Your task to perform on an android device: Open wifi settings Image 0: 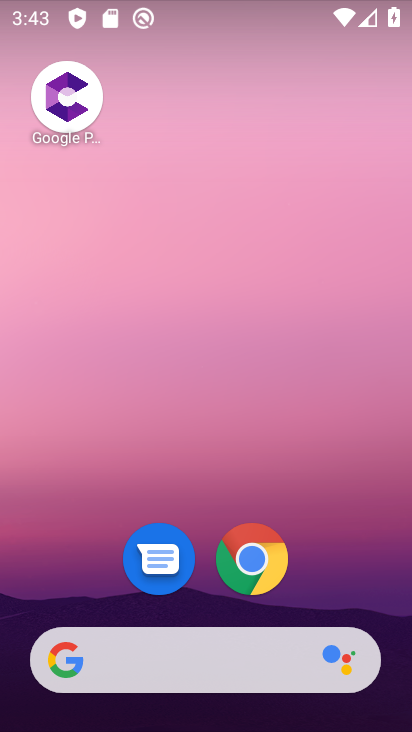
Step 0: click (102, 406)
Your task to perform on an android device: Open wifi settings Image 1: 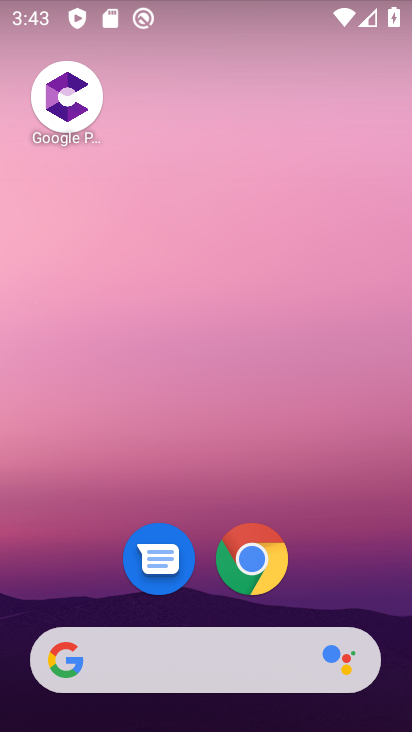
Step 1: drag from (188, 581) to (292, 143)
Your task to perform on an android device: Open wifi settings Image 2: 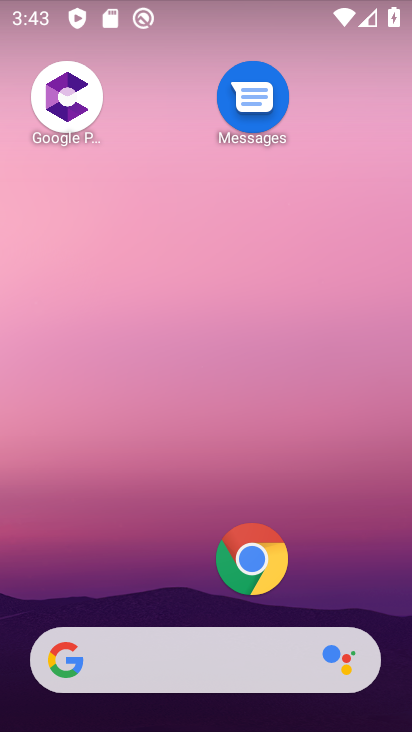
Step 2: drag from (160, 617) to (302, 99)
Your task to perform on an android device: Open wifi settings Image 3: 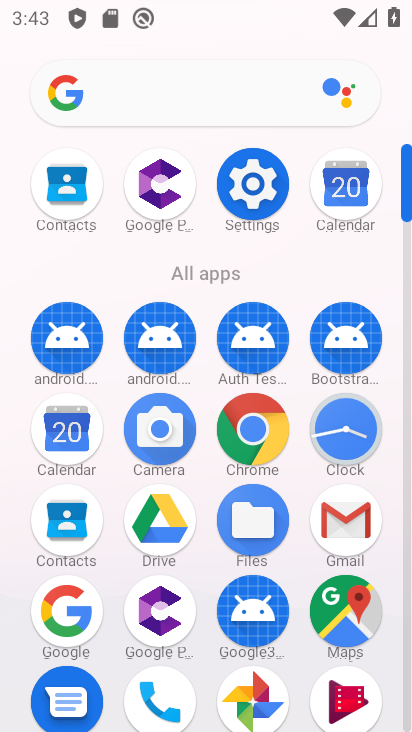
Step 3: click (255, 188)
Your task to perform on an android device: Open wifi settings Image 4: 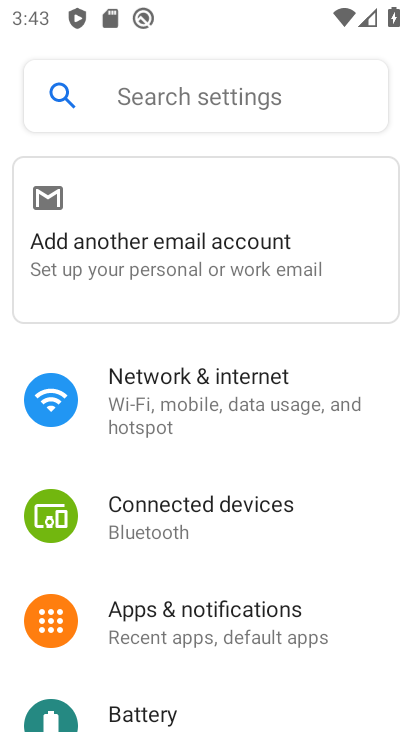
Step 4: click (216, 395)
Your task to perform on an android device: Open wifi settings Image 5: 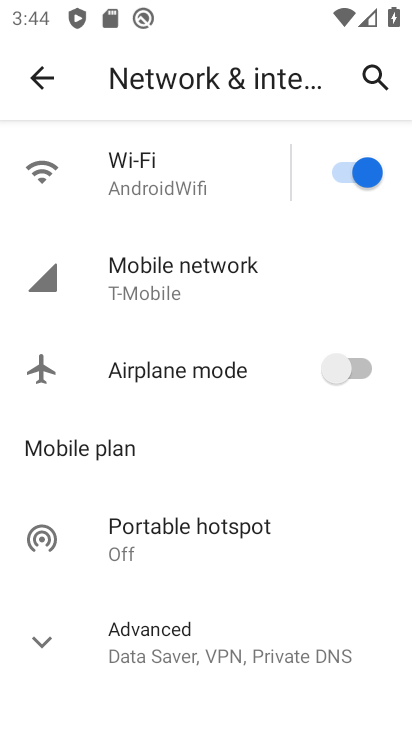
Step 5: click (146, 192)
Your task to perform on an android device: Open wifi settings Image 6: 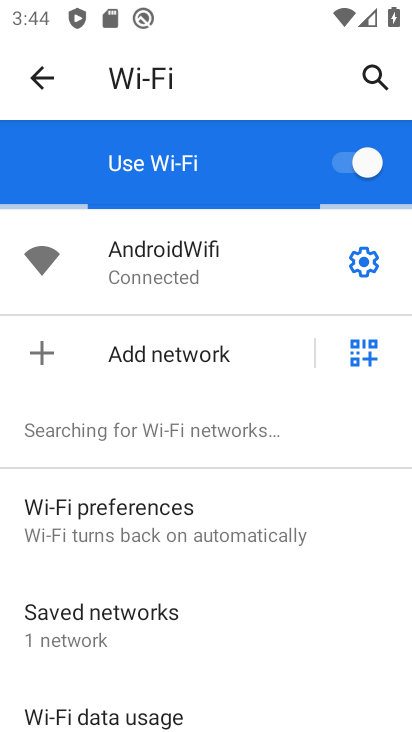
Step 6: task complete